Your task to perform on an android device: Open Amazon Image 0: 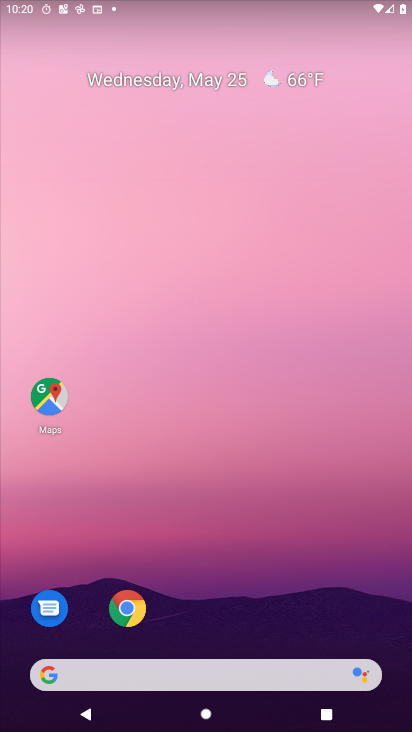
Step 0: click (125, 609)
Your task to perform on an android device: Open Amazon Image 1: 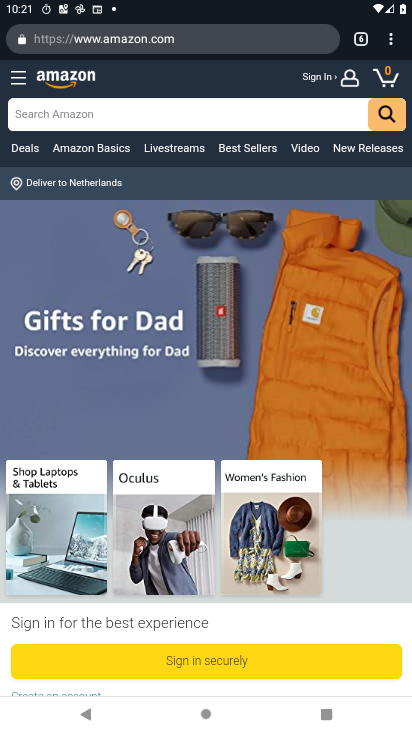
Step 1: task complete